Your task to perform on an android device: set an alarm Image 0: 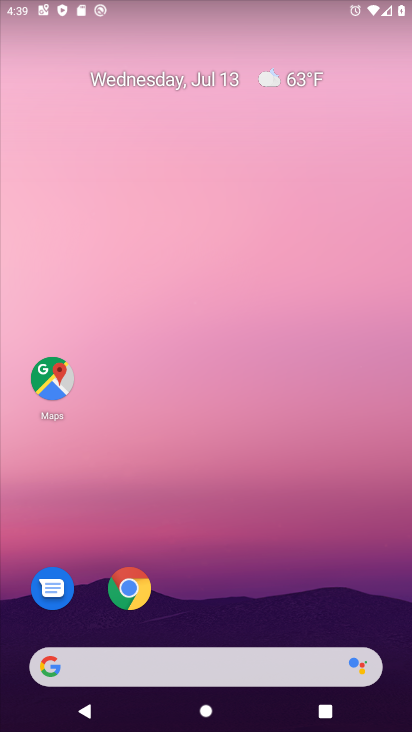
Step 0: drag from (249, 662) to (288, 186)
Your task to perform on an android device: set an alarm Image 1: 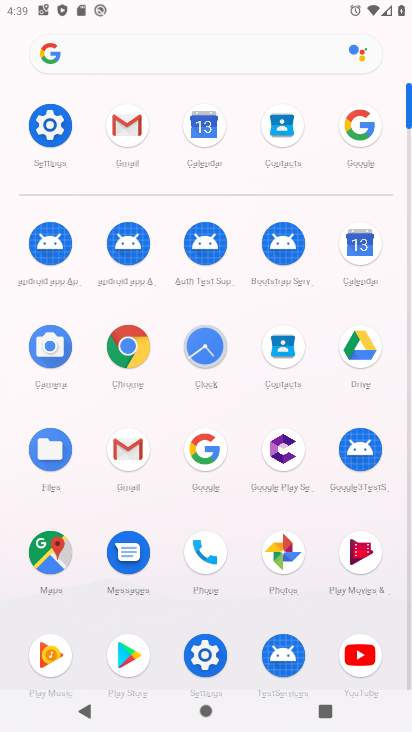
Step 1: click (206, 347)
Your task to perform on an android device: set an alarm Image 2: 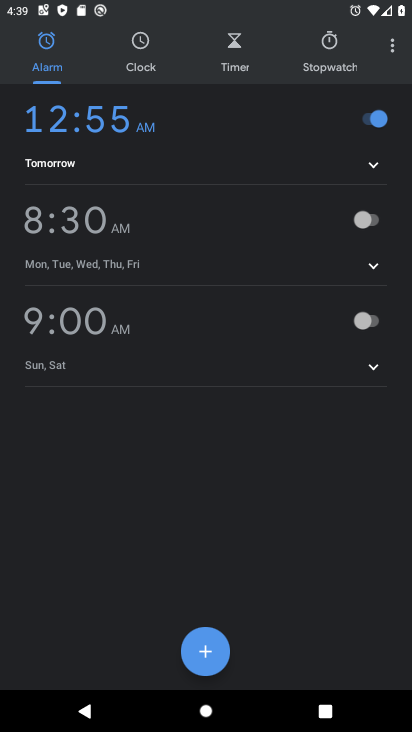
Step 2: click (206, 652)
Your task to perform on an android device: set an alarm Image 3: 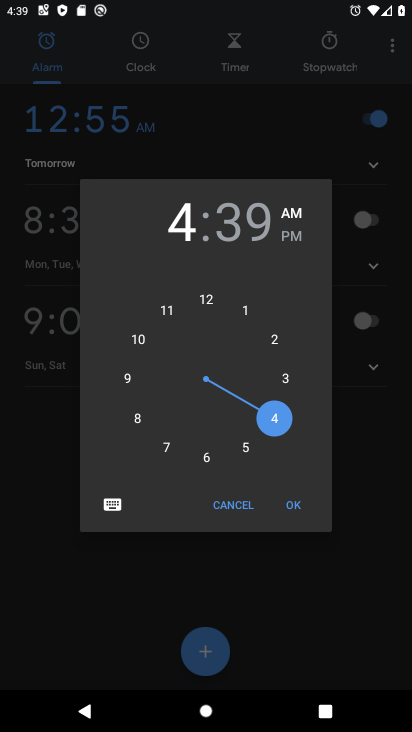
Step 3: click (197, 458)
Your task to perform on an android device: set an alarm Image 4: 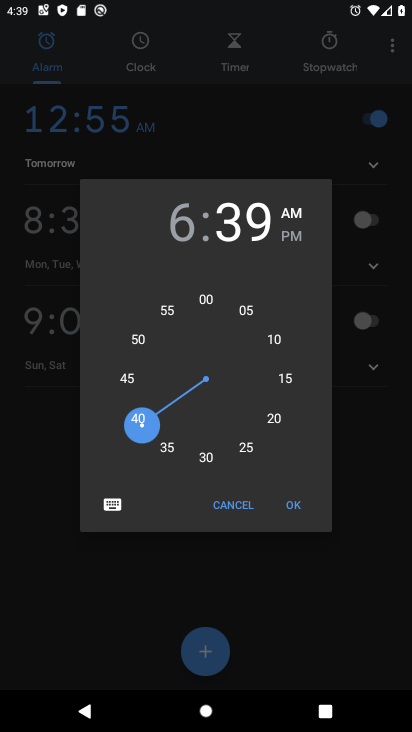
Step 4: click (197, 458)
Your task to perform on an android device: set an alarm Image 5: 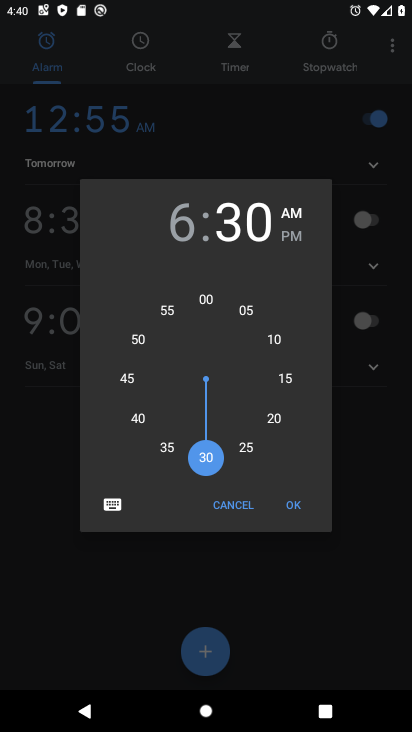
Step 5: click (292, 240)
Your task to perform on an android device: set an alarm Image 6: 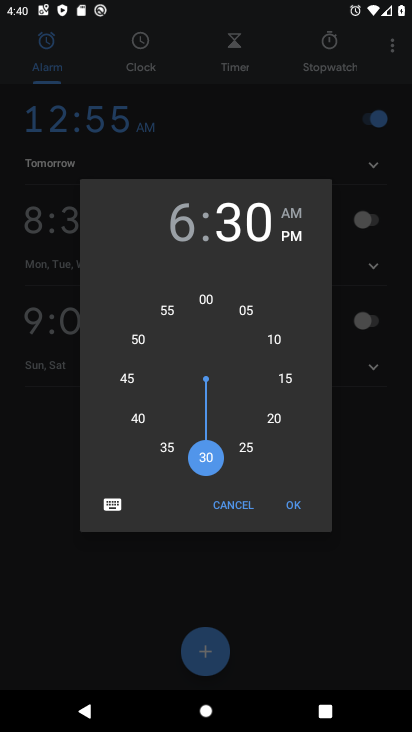
Step 6: click (288, 505)
Your task to perform on an android device: set an alarm Image 7: 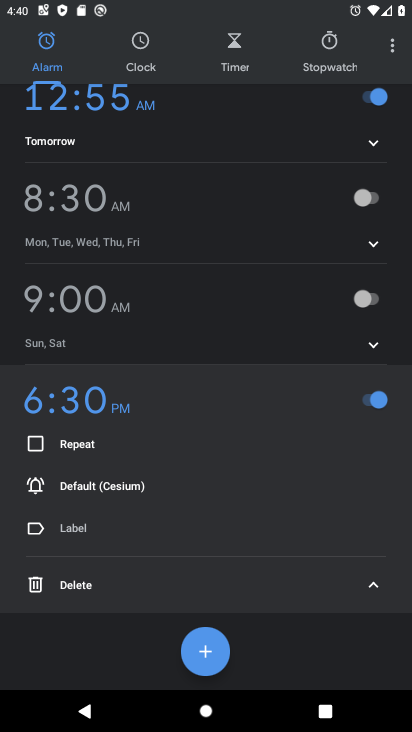
Step 7: click (375, 589)
Your task to perform on an android device: set an alarm Image 8: 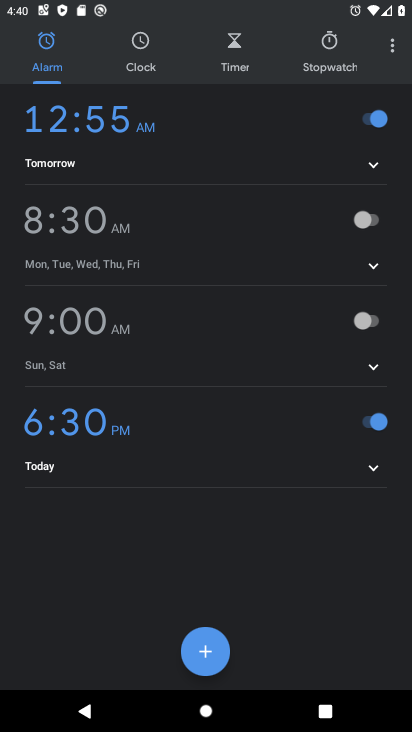
Step 8: task complete